Your task to perform on an android device: Open the calendar app, open the side menu, and click the "Day" option Image 0: 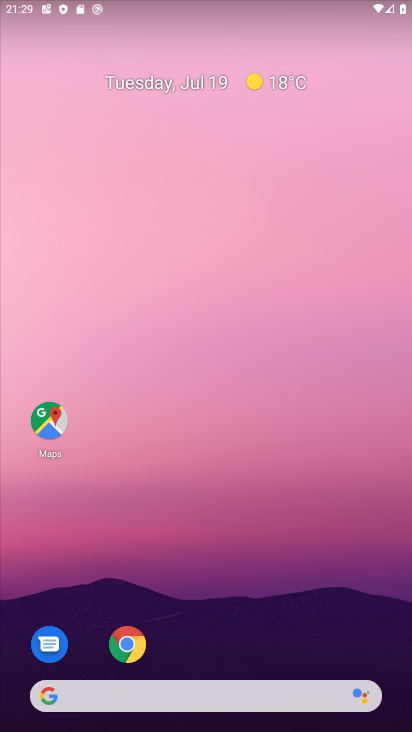
Step 0: drag from (213, 709) to (243, 134)
Your task to perform on an android device: Open the calendar app, open the side menu, and click the "Day" option Image 1: 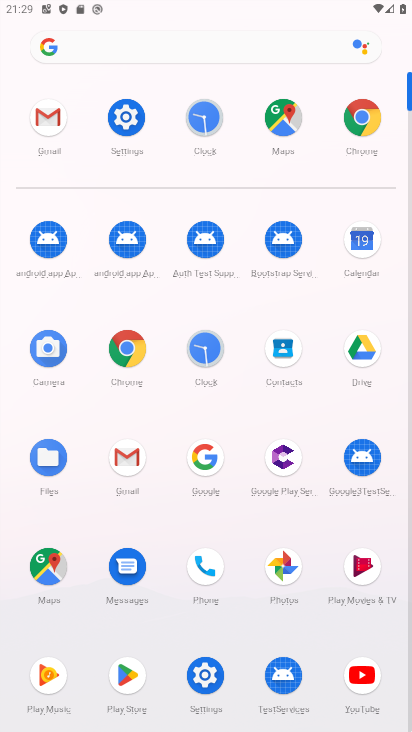
Step 1: click (351, 251)
Your task to perform on an android device: Open the calendar app, open the side menu, and click the "Day" option Image 2: 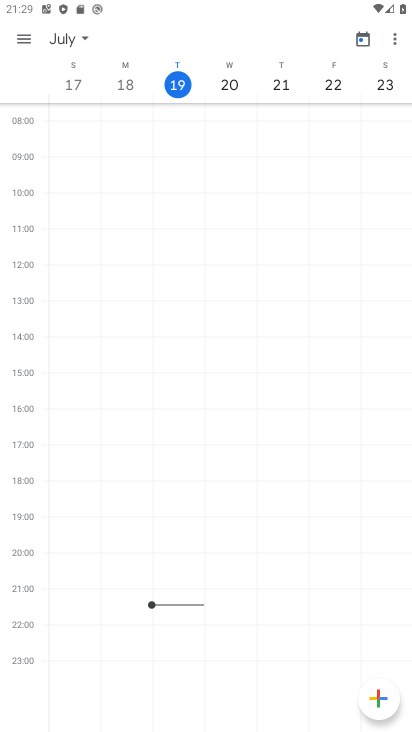
Step 2: click (22, 32)
Your task to perform on an android device: Open the calendar app, open the side menu, and click the "Day" option Image 3: 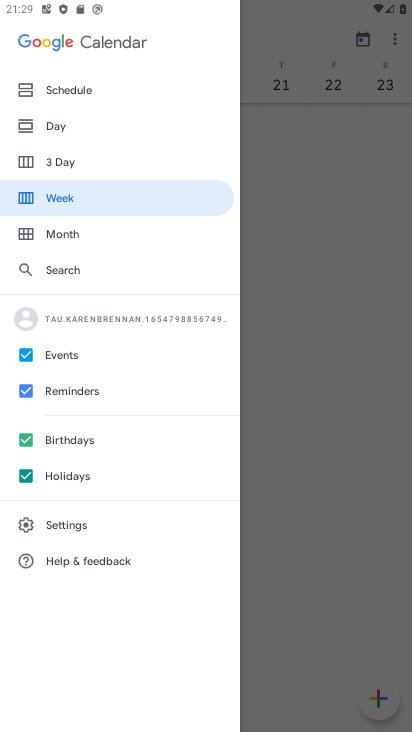
Step 3: click (57, 128)
Your task to perform on an android device: Open the calendar app, open the side menu, and click the "Day" option Image 4: 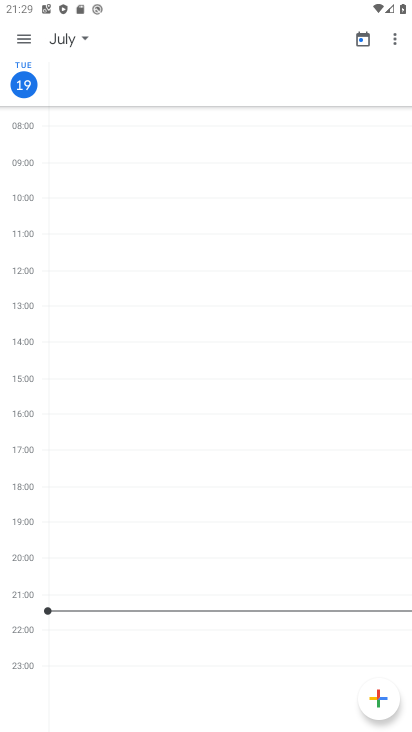
Step 4: task complete